Your task to perform on an android device: Go to internet settings Image 0: 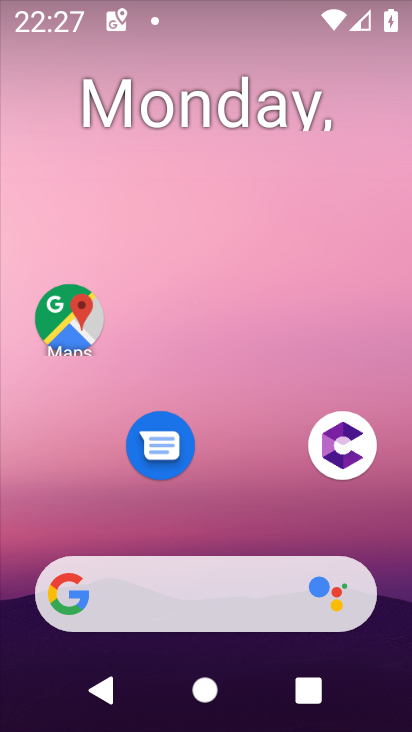
Step 0: press home button
Your task to perform on an android device: Go to internet settings Image 1: 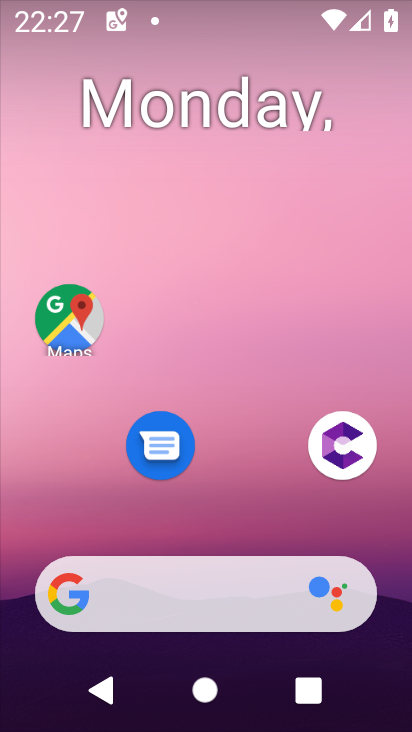
Step 1: drag from (238, 532) to (229, 191)
Your task to perform on an android device: Go to internet settings Image 2: 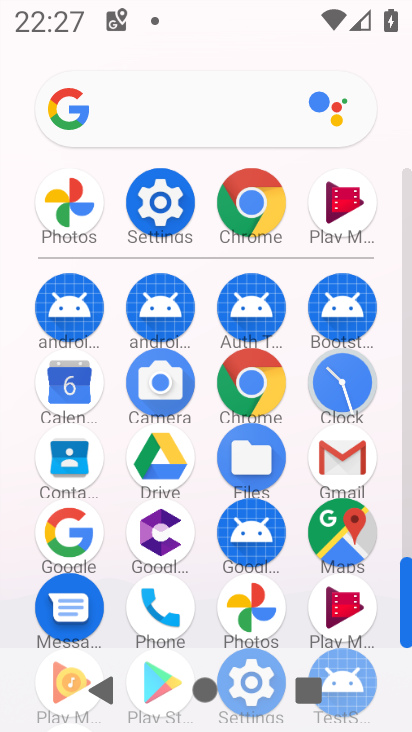
Step 2: click (165, 200)
Your task to perform on an android device: Go to internet settings Image 3: 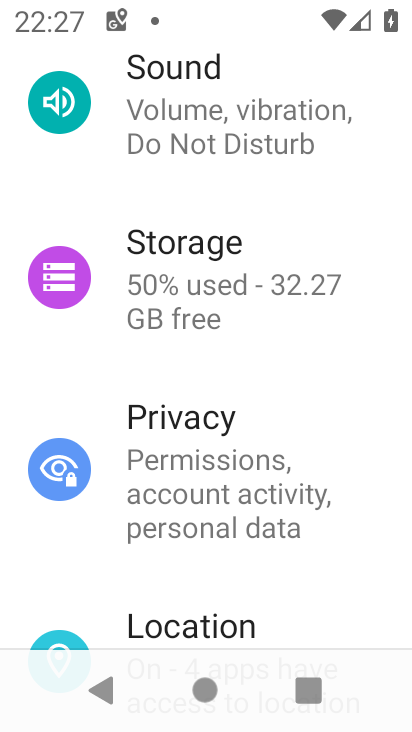
Step 3: drag from (246, 146) to (273, 614)
Your task to perform on an android device: Go to internet settings Image 4: 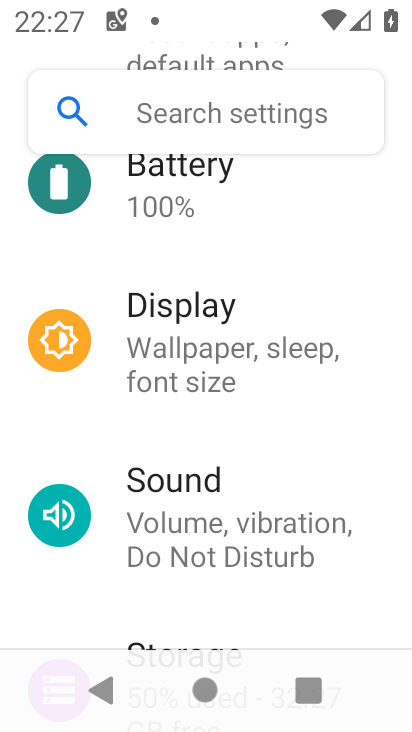
Step 4: drag from (236, 267) to (235, 692)
Your task to perform on an android device: Go to internet settings Image 5: 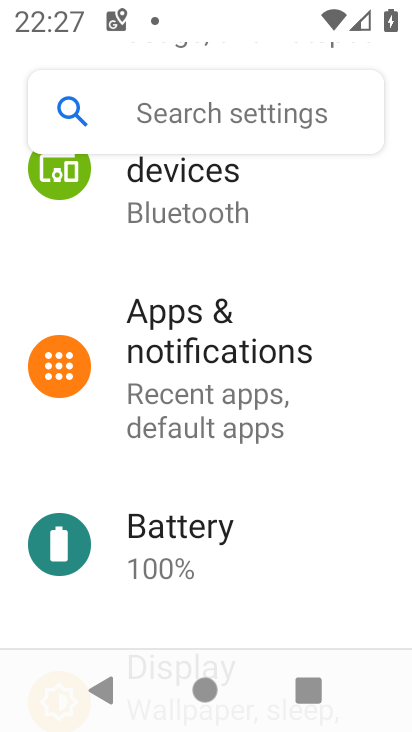
Step 5: drag from (349, 263) to (323, 643)
Your task to perform on an android device: Go to internet settings Image 6: 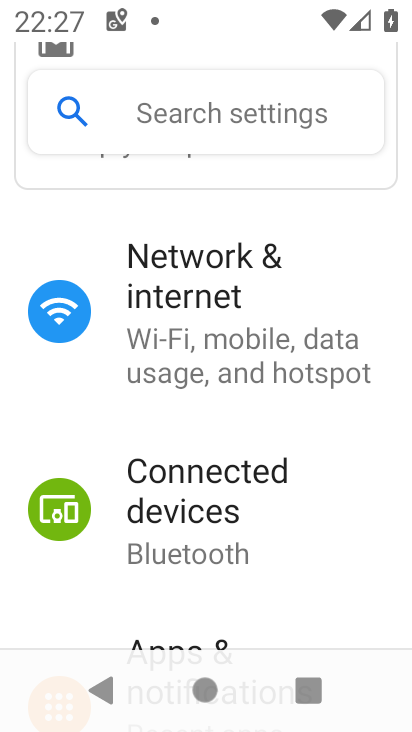
Step 6: click (208, 288)
Your task to perform on an android device: Go to internet settings Image 7: 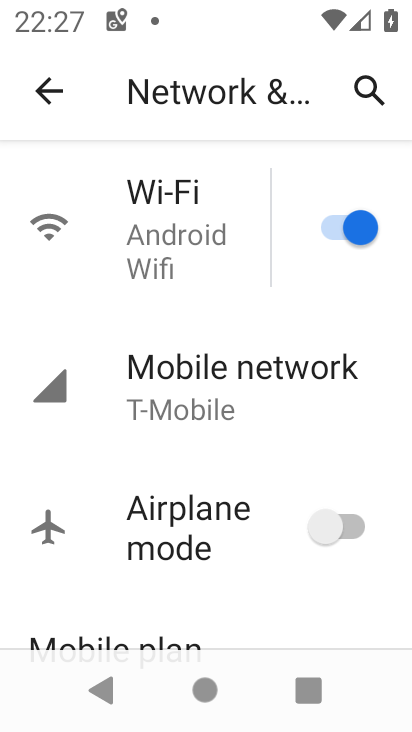
Step 7: task complete